Your task to perform on an android device: install app "Life360: Find Family & Friends" Image 0: 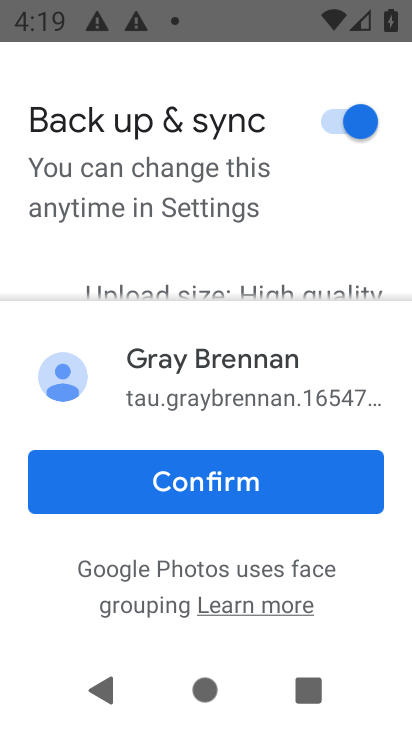
Step 0: press home button
Your task to perform on an android device: install app "Life360: Find Family & Friends" Image 1: 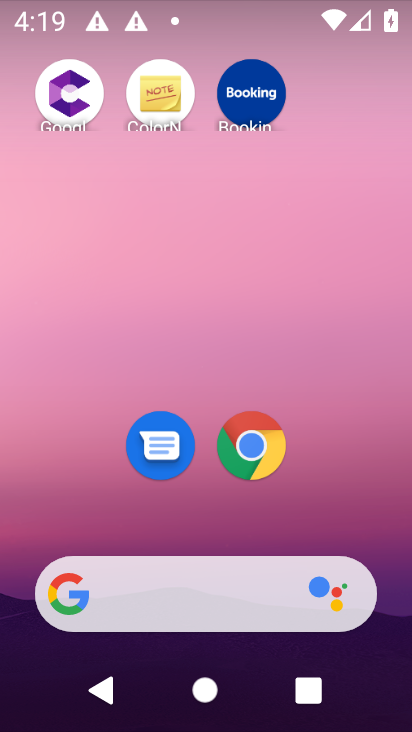
Step 1: drag from (221, 496) to (254, 0)
Your task to perform on an android device: install app "Life360: Find Family & Friends" Image 2: 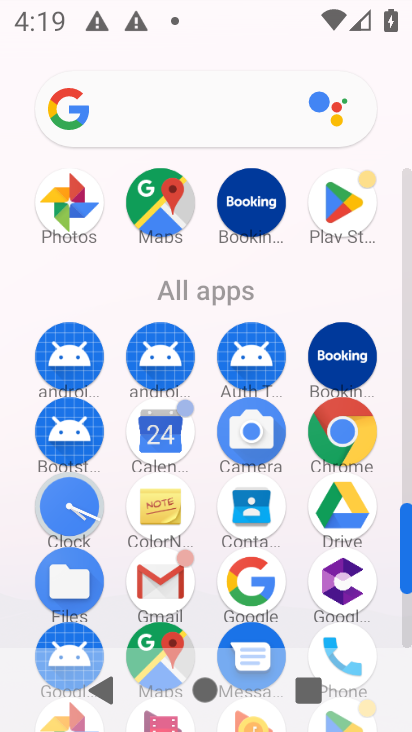
Step 2: click (342, 206)
Your task to perform on an android device: install app "Life360: Find Family & Friends" Image 3: 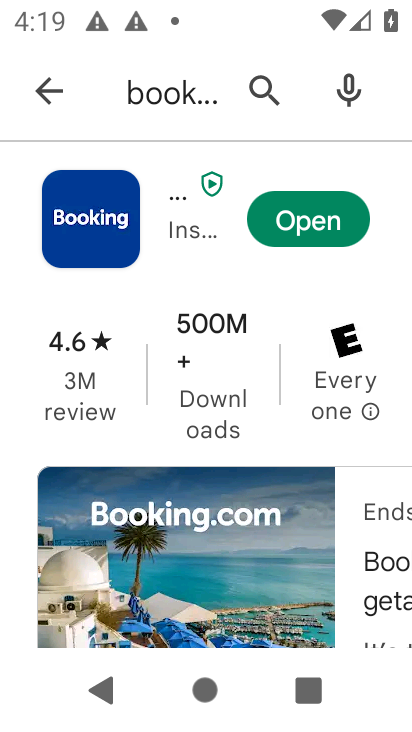
Step 3: click (161, 102)
Your task to perform on an android device: install app "Life360: Find Family & Friends" Image 4: 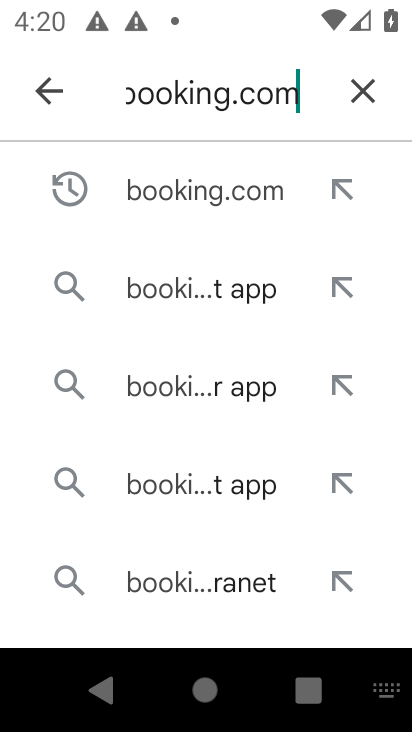
Step 4: click (363, 95)
Your task to perform on an android device: install app "Life360: Find Family & Friends" Image 5: 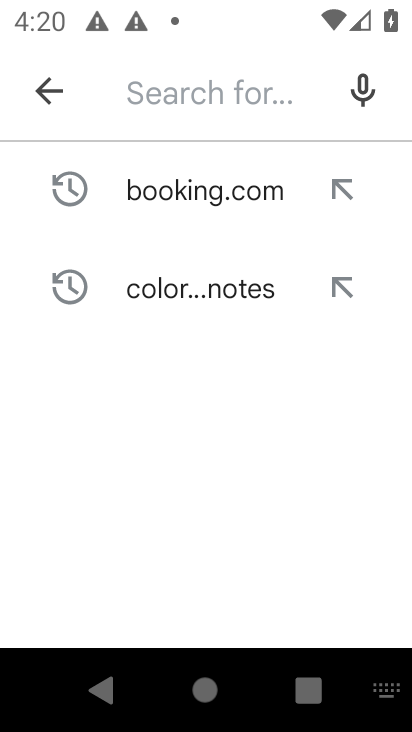
Step 5: type "life360"
Your task to perform on an android device: install app "Life360: Find Family & Friends" Image 6: 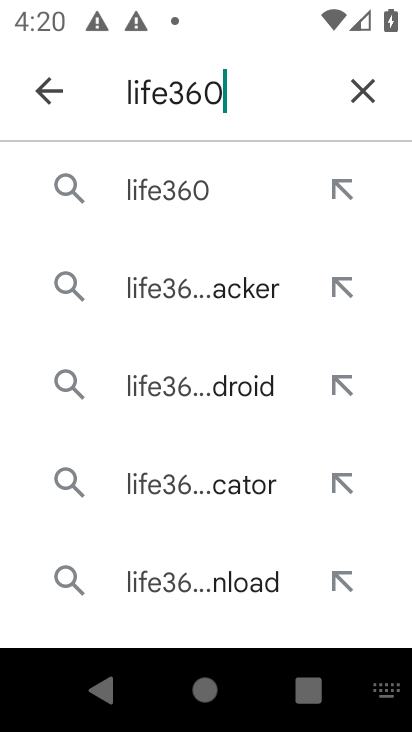
Step 6: click (160, 206)
Your task to perform on an android device: install app "Life360: Find Family & Friends" Image 7: 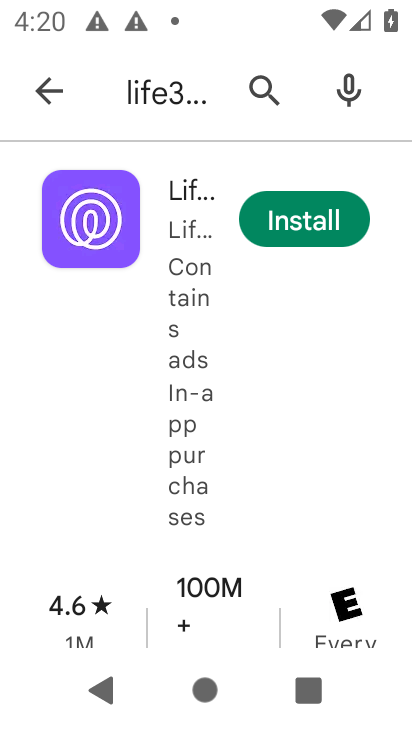
Step 7: click (332, 217)
Your task to perform on an android device: install app "Life360: Find Family & Friends" Image 8: 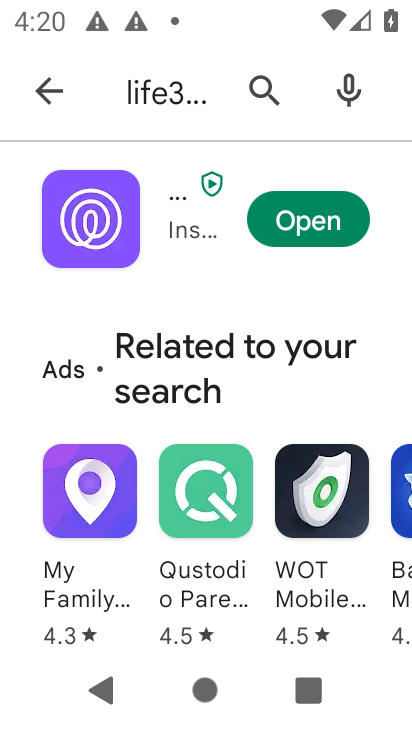
Step 8: task complete